Your task to perform on an android device: turn off wifi Image 0: 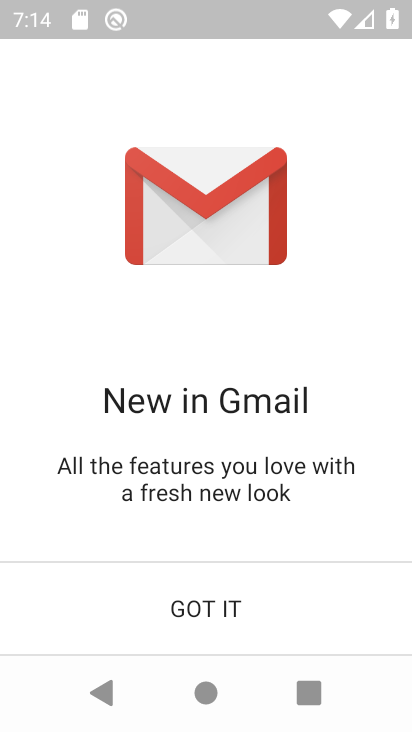
Step 0: click (227, 629)
Your task to perform on an android device: turn off wifi Image 1: 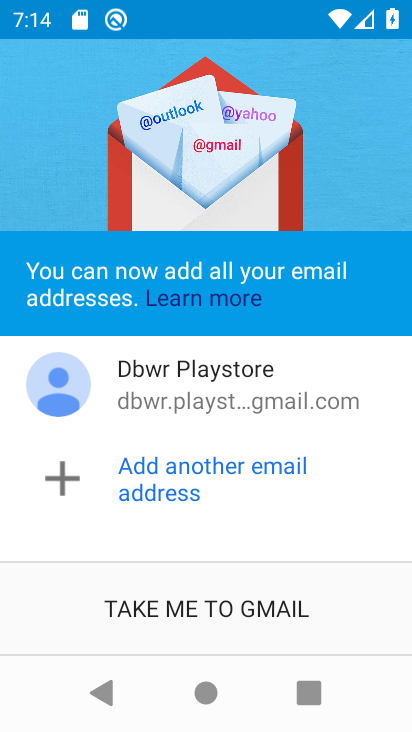
Step 1: click (227, 629)
Your task to perform on an android device: turn off wifi Image 2: 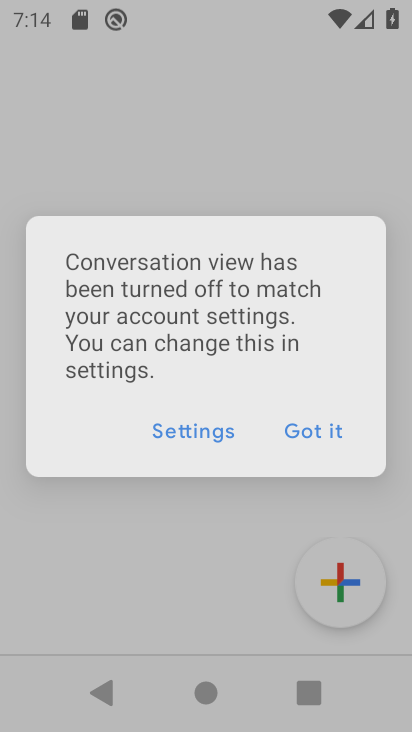
Step 2: press home button
Your task to perform on an android device: turn off wifi Image 3: 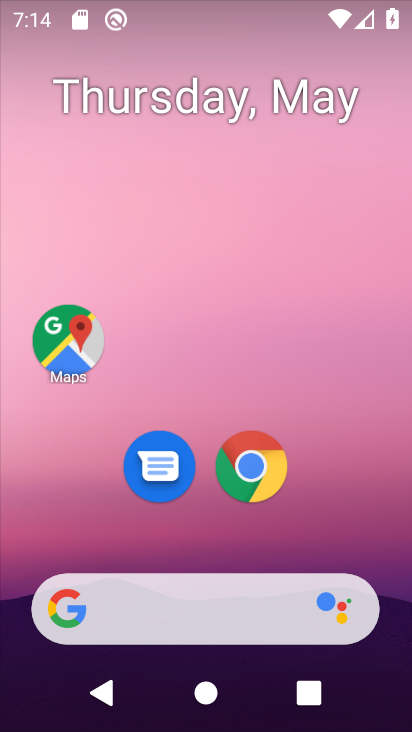
Step 3: drag from (364, 502) to (275, 101)
Your task to perform on an android device: turn off wifi Image 4: 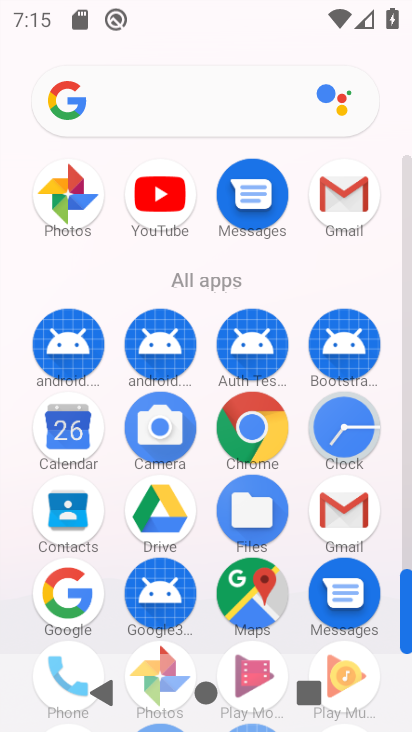
Step 4: drag from (408, 601) to (412, 699)
Your task to perform on an android device: turn off wifi Image 5: 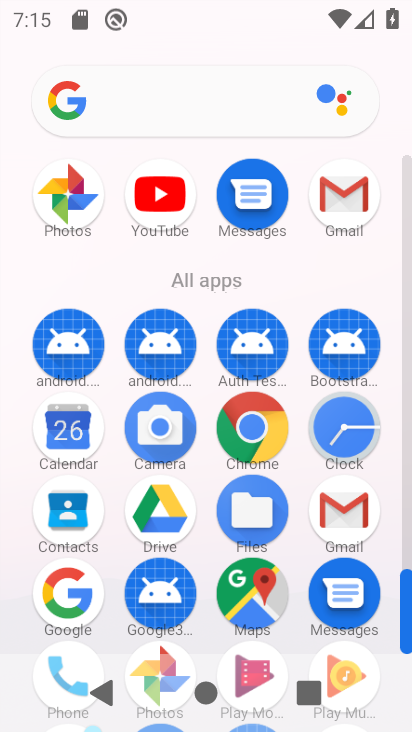
Step 5: drag from (408, 612) to (407, 706)
Your task to perform on an android device: turn off wifi Image 6: 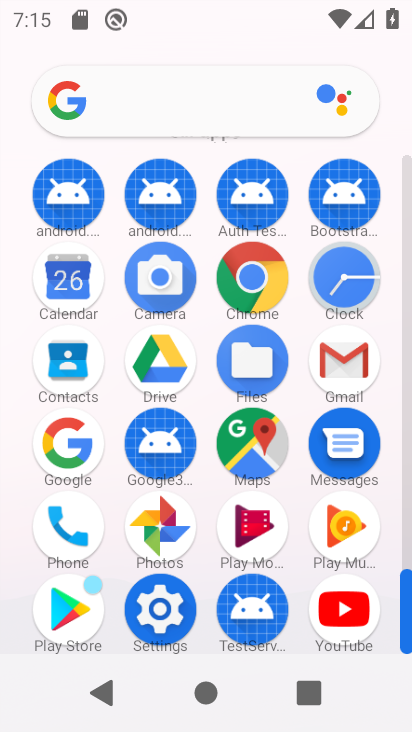
Step 6: click (164, 597)
Your task to perform on an android device: turn off wifi Image 7: 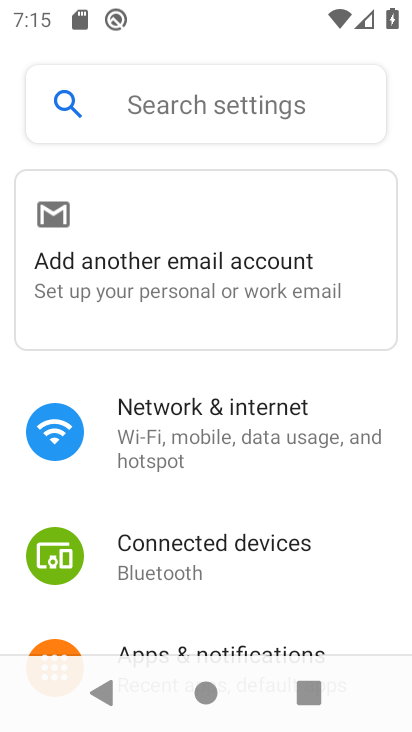
Step 7: click (224, 459)
Your task to perform on an android device: turn off wifi Image 8: 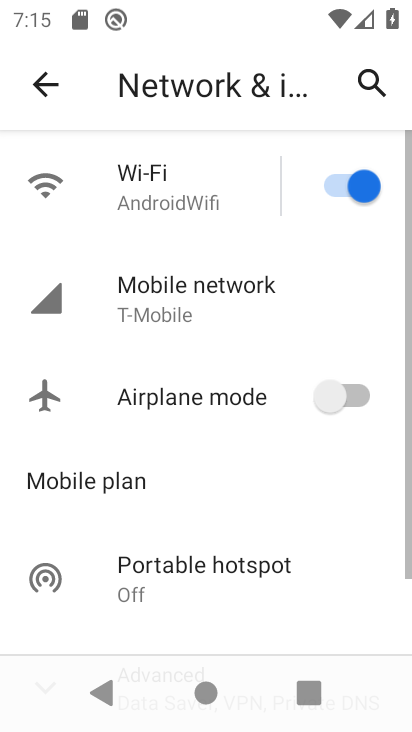
Step 8: click (312, 216)
Your task to perform on an android device: turn off wifi Image 9: 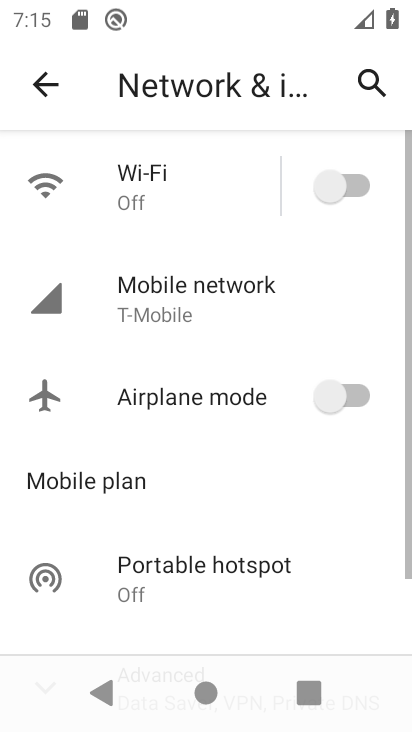
Step 9: task complete